Your task to perform on an android device: search for starred emails in the gmail app Image 0: 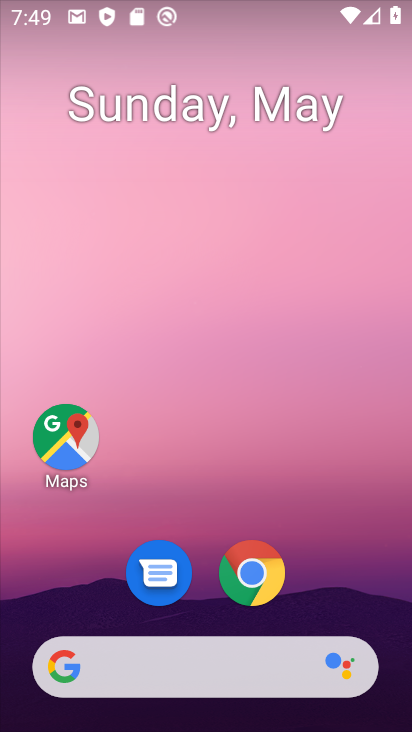
Step 0: drag from (208, 459) to (239, 0)
Your task to perform on an android device: search for starred emails in the gmail app Image 1: 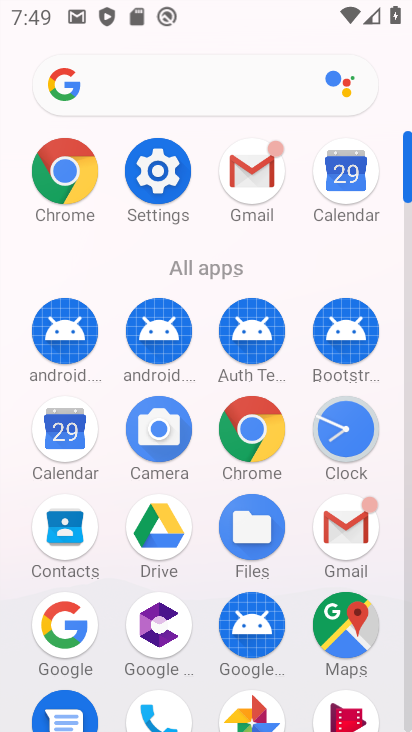
Step 1: click (252, 183)
Your task to perform on an android device: search for starred emails in the gmail app Image 2: 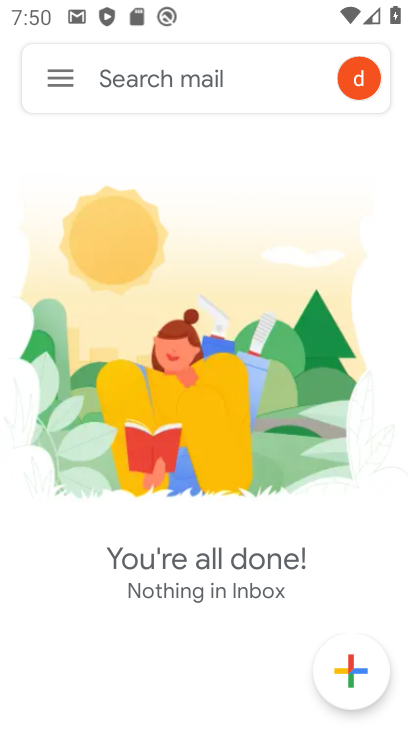
Step 2: click (59, 71)
Your task to perform on an android device: search for starred emails in the gmail app Image 3: 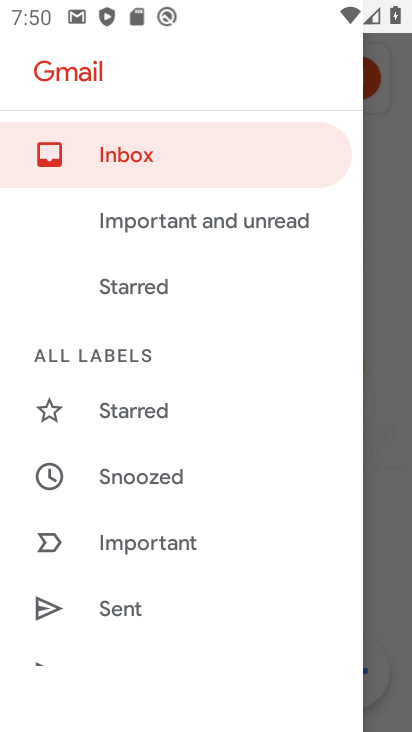
Step 3: click (182, 411)
Your task to perform on an android device: search for starred emails in the gmail app Image 4: 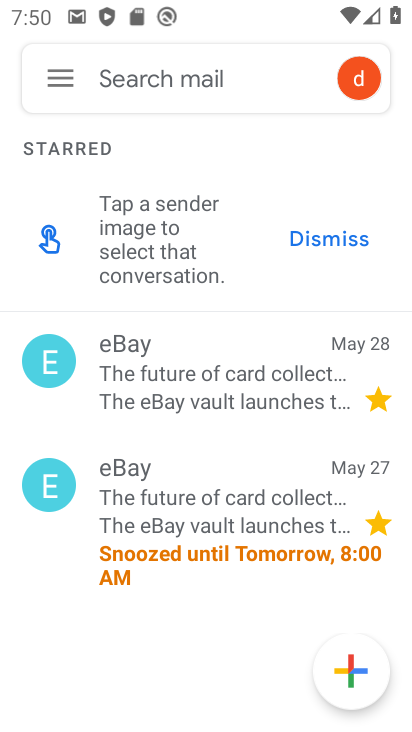
Step 4: task complete